Your task to perform on an android device: allow notifications from all sites in the chrome app Image 0: 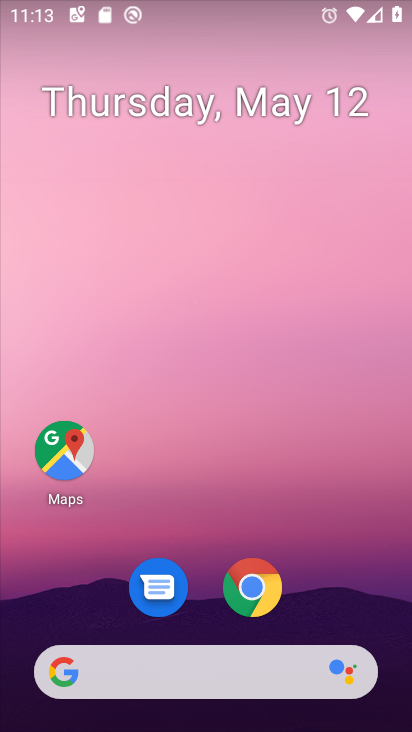
Step 0: drag from (350, 590) to (272, 97)
Your task to perform on an android device: allow notifications from all sites in the chrome app Image 1: 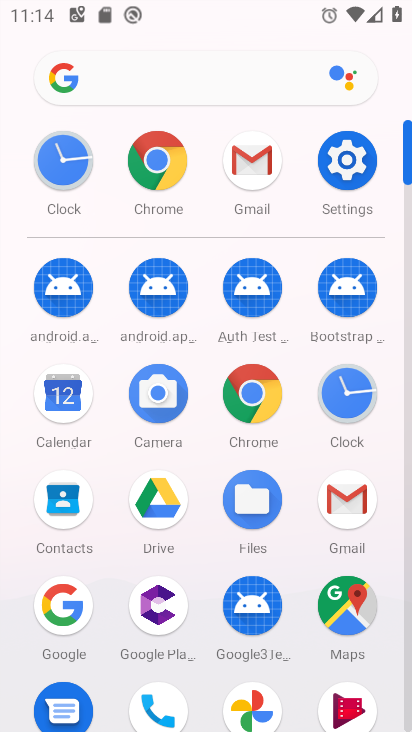
Step 1: click (255, 413)
Your task to perform on an android device: allow notifications from all sites in the chrome app Image 2: 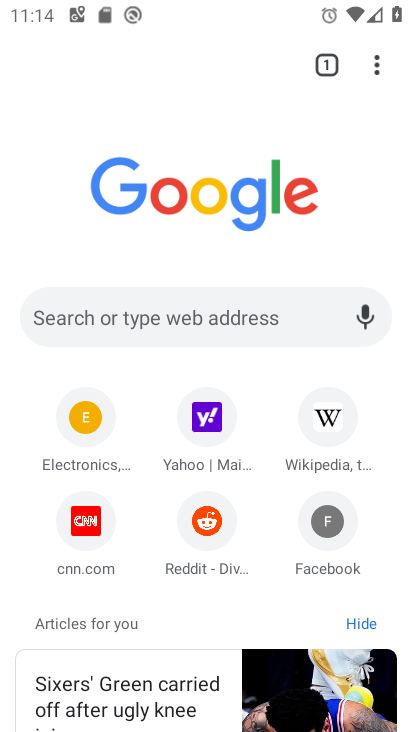
Step 2: click (379, 36)
Your task to perform on an android device: allow notifications from all sites in the chrome app Image 3: 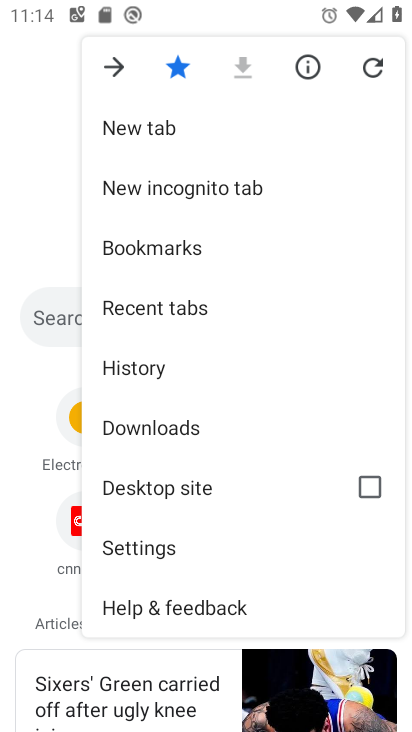
Step 3: click (166, 556)
Your task to perform on an android device: allow notifications from all sites in the chrome app Image 4: 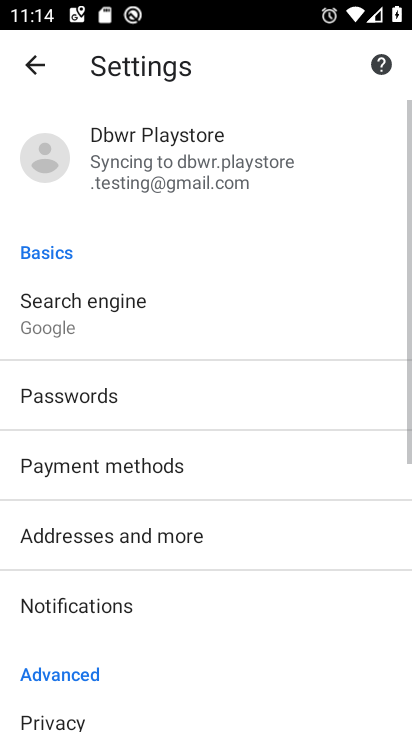
Step 4: click (105, 613)
Your task to perform on an android device: allow notifications from all sites in the chrome app Image 5: 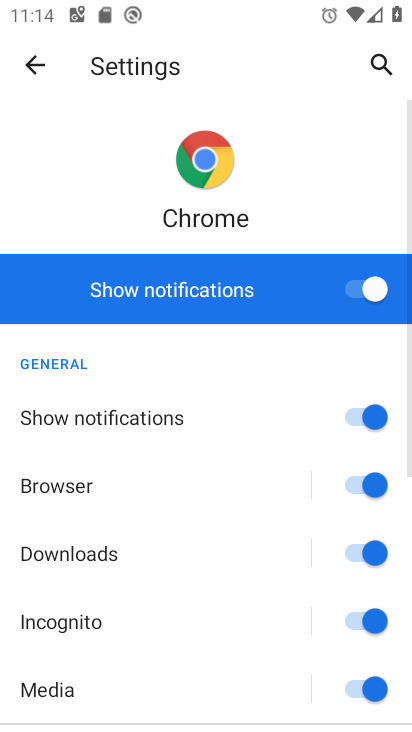
Step 5: task complete